Your task to perform on an android device: change the clock display to digital Image 0: 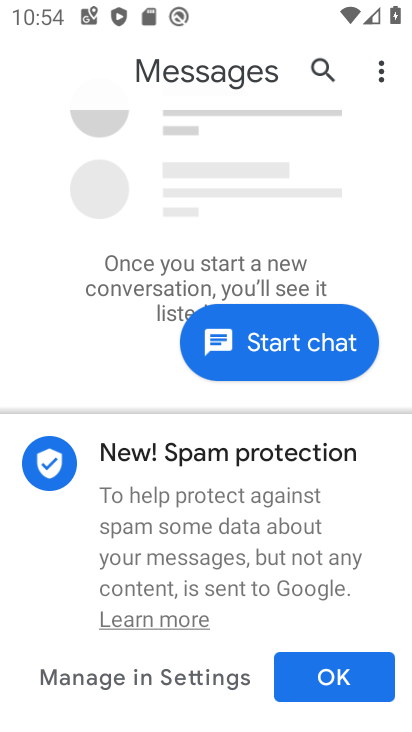
Step 0: press back button
Your task to perform on an android device: change the clock display to digital Image 1: 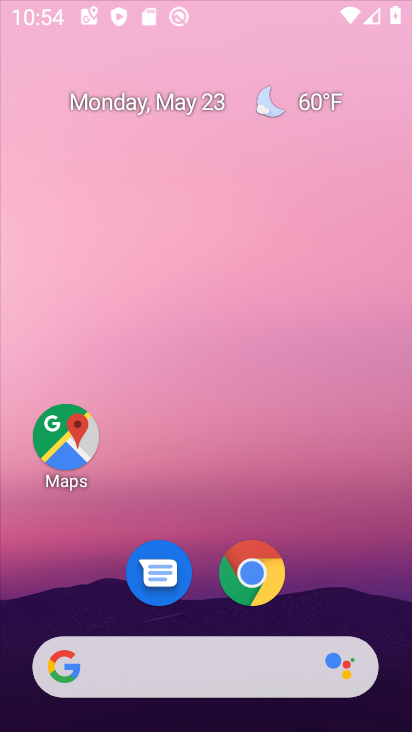
Step 1: click (256, 76)
Your task to perform on an android device: change the clock display to digital Image 2: 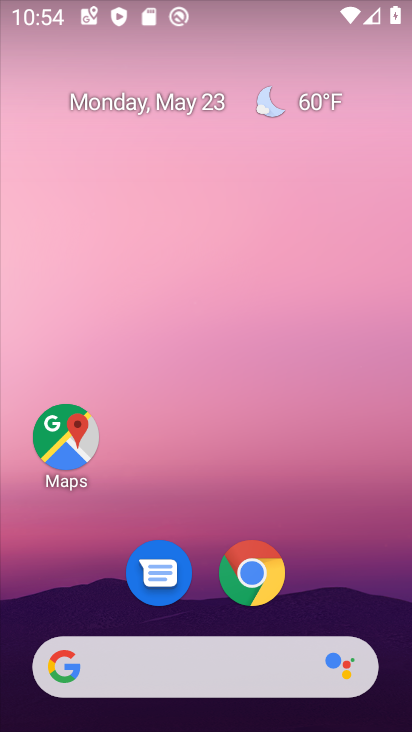
Step 2: drag from (301, 448) to (235, 12)
Your task to perform on an android device: change the clock display to digital Image 3: 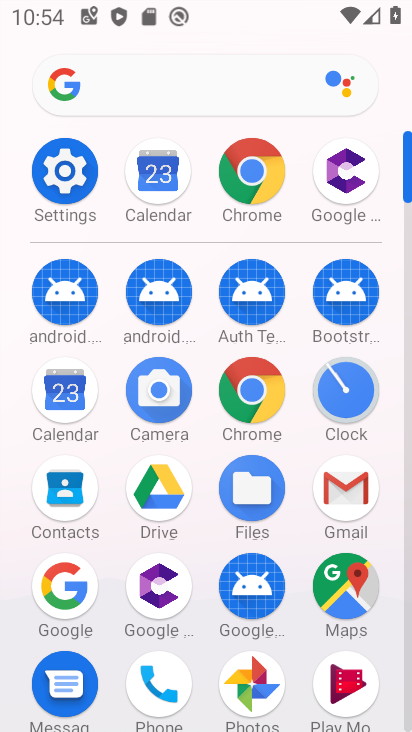
Step 3: drag from (20, 454) to (25, 184)
Your task to perform on an android device: change the clock display to digital Image 4: 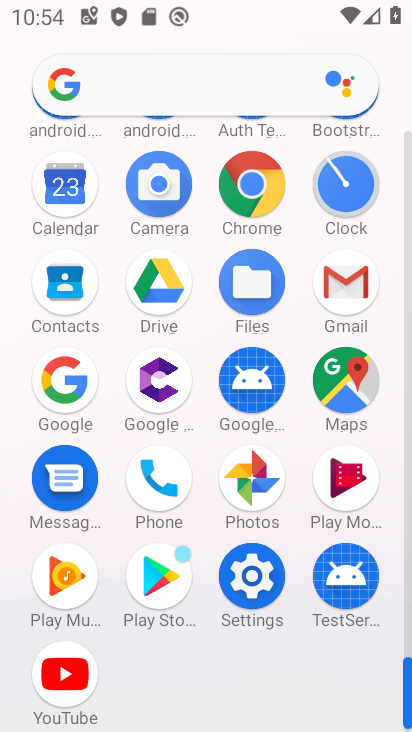
Step 4: click (344, 177)
Your task to perform on an android device: change the clock display to digital Image 5: 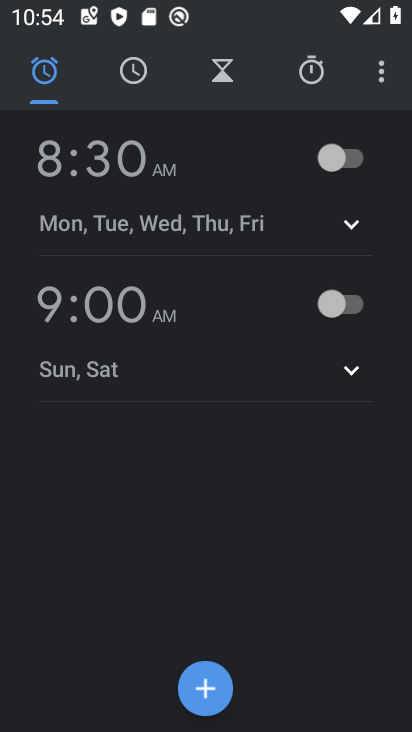
Step 5: drag from (384, 74) to (266, 149)
Your task to perform on an android device: change the clock display to digital Image 6: 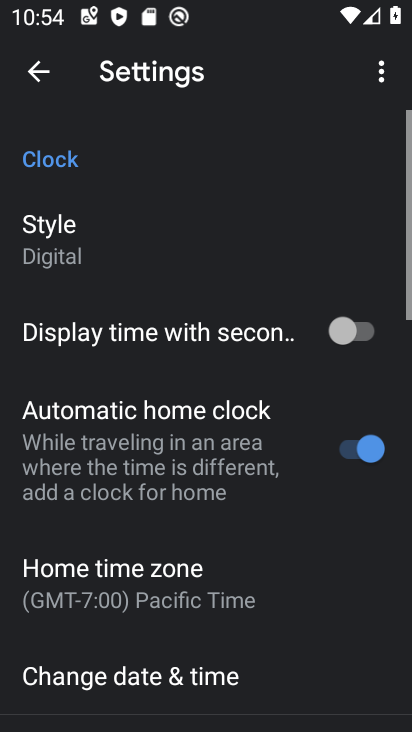
Step 6: click (157, 243)
Your task to perform on an android device: change the clock display to digital Image 7: 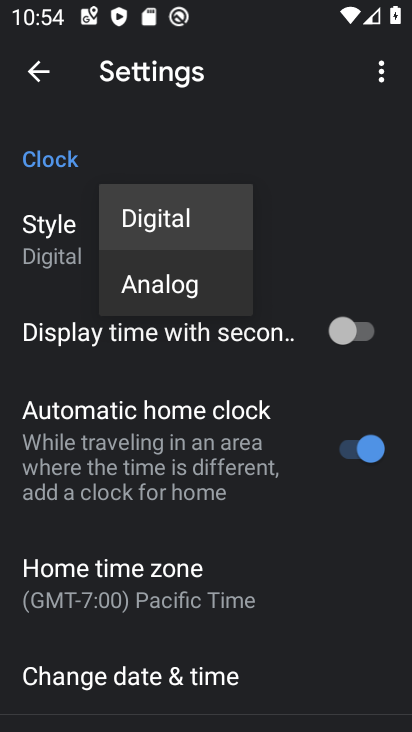
Step 7: click (154, 288)
Your task to perform on an android device: change the clock display to digital Image 8: 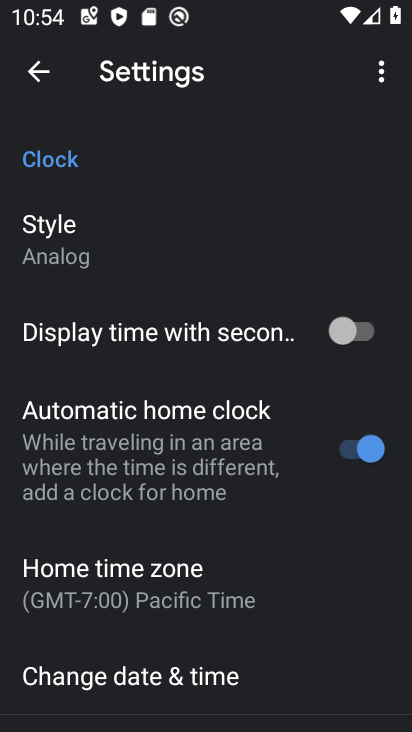
Step 8: click (129, 236)
Your task to perform on an android device: change the clock display to digital Image 9: 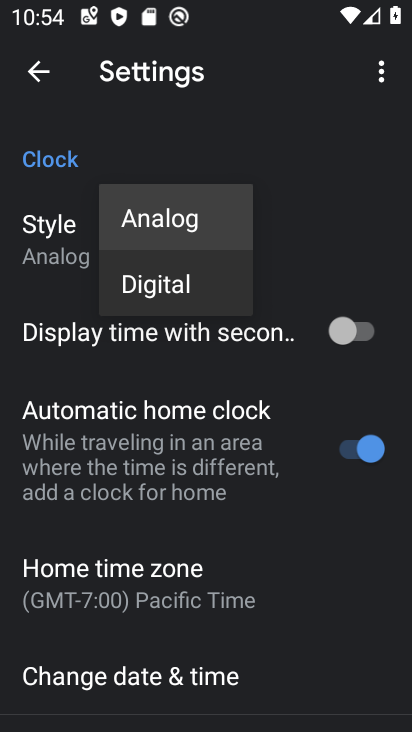
Step 9: click (142, 279)
Your task to perform on an android device: change the clock display to digital Image 10: 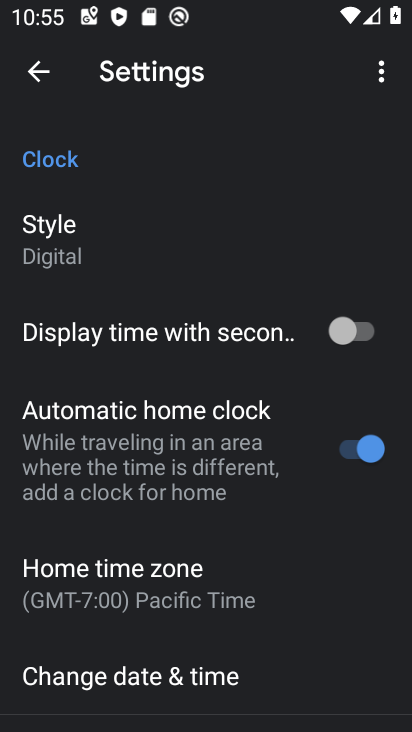
Step 10: task complete